Your task to perform on an android device: toggle priority inbox in the gmail app Image 0: 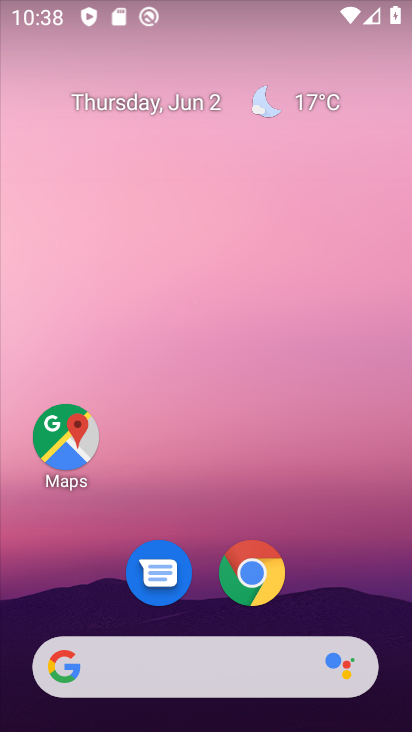
Step 0: task complete